Your task to perform on an android device: Go to Maps Image 0: 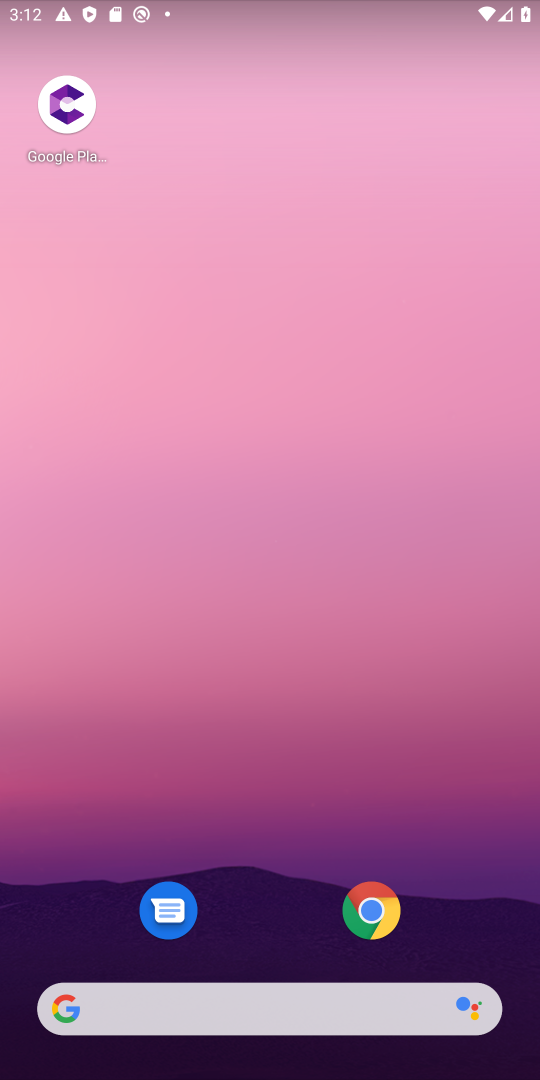
Step 0: drag from (457, 927) to (329, 172)
Your task to perform on an android device: Go to Maps Image 1: 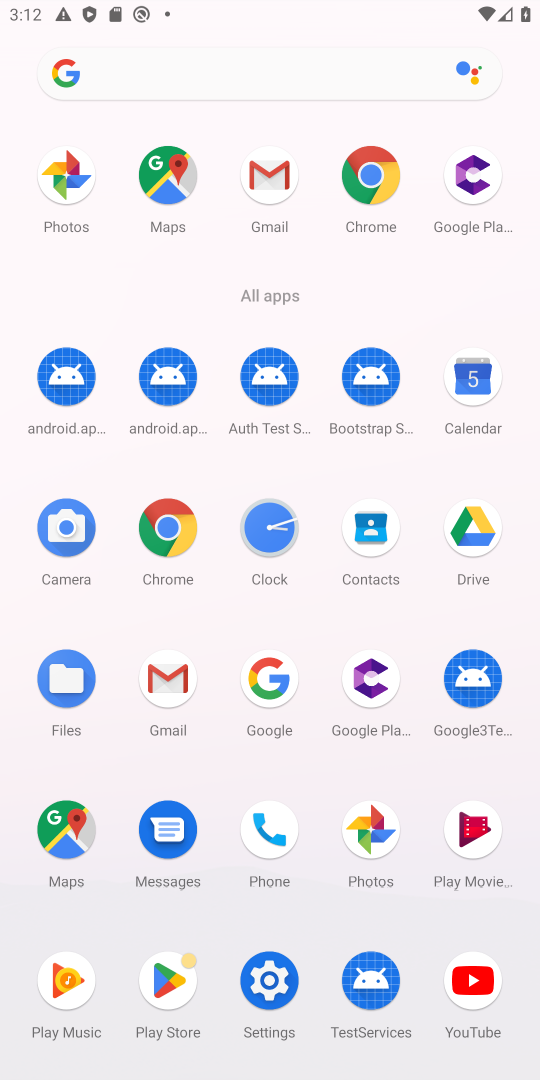
Step 1: click (172, 165)
Your task to perform on an android device: Go to Maps Image 2: 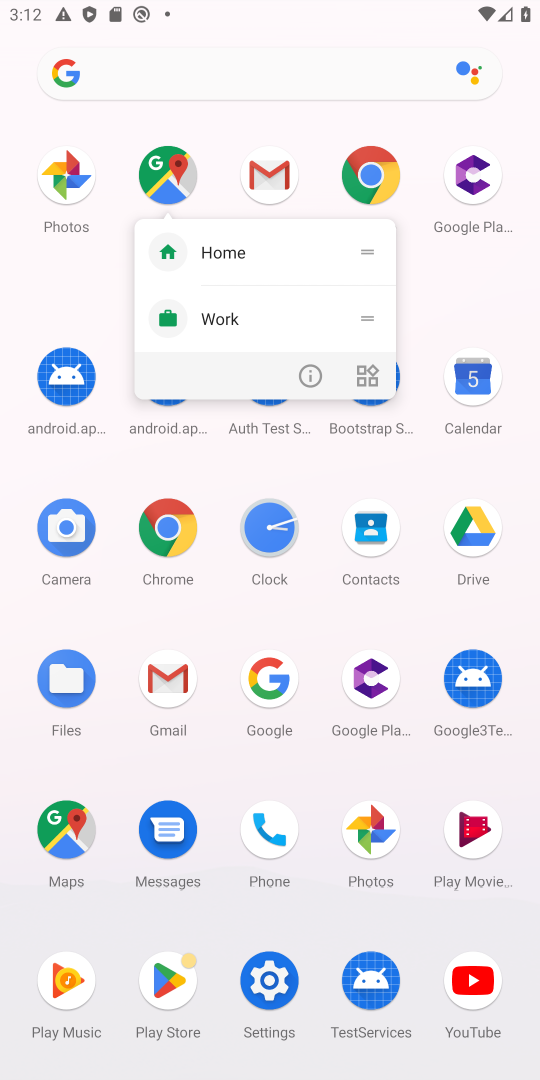
Step 2: click (175, 171)
Your task to perform on an android device: Go to Maps Image 3: 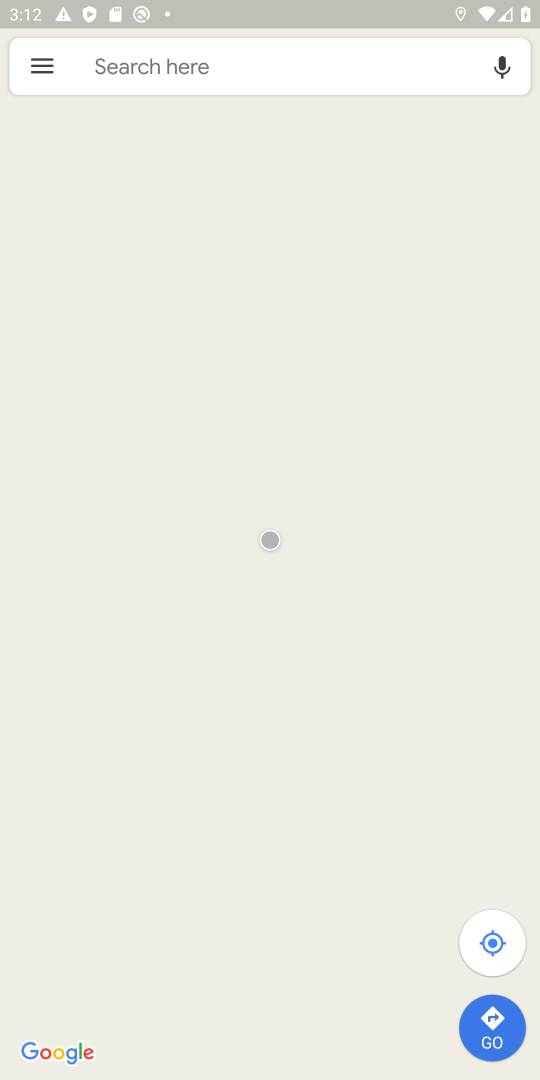
Step 3: task complete